Your task to perform on an android device: turn on location history Image 0: 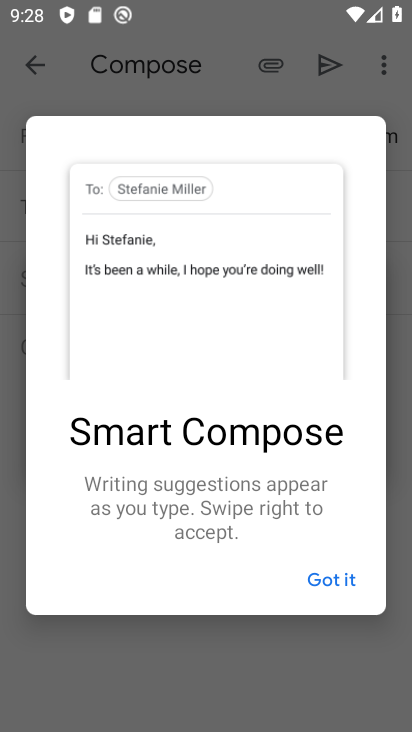
Step 0: press home button
Your task to perform on an android device: turn on location history Image 1: 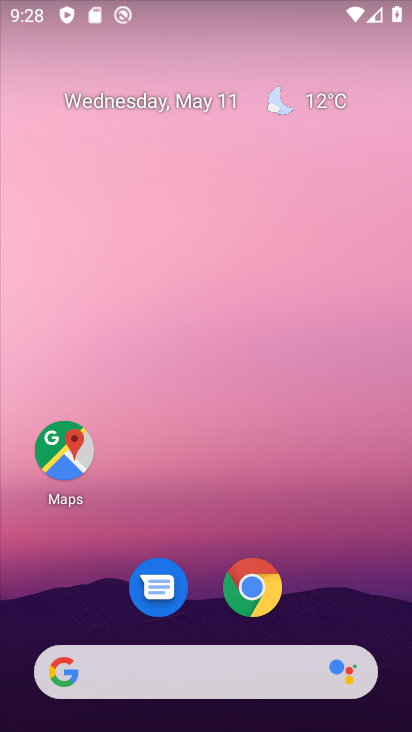
Step 1: click (55, 454)
Your task to perform on an android device: turn on location history Image 2: 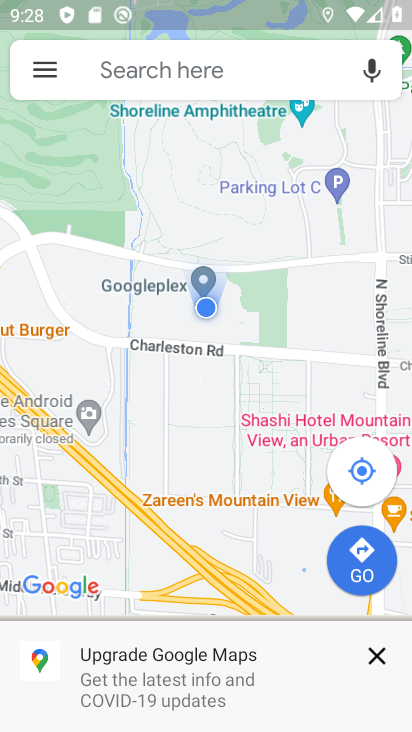
Step 2: click (52, 70)
Your task to perform on an android device: turn on location history Image 3: 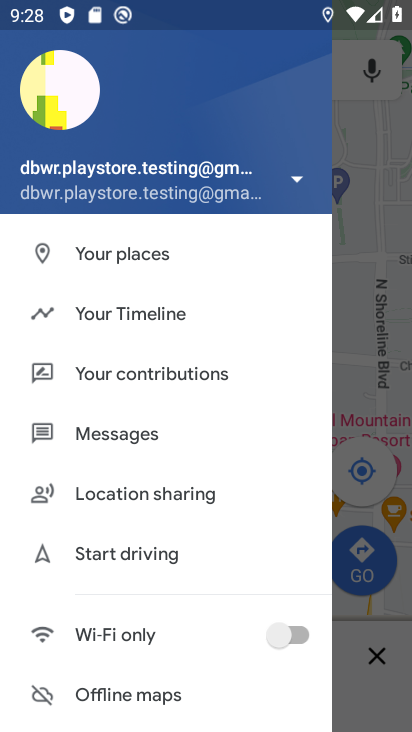
Step 3: click (140, 319)
Your task to perform on an android device: turn on location history Image 4: 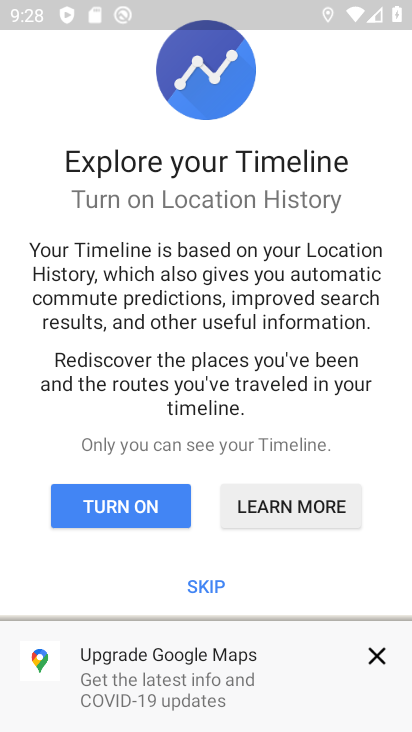
Step 4: click (217, 585)
Your task to perform on an android device: turn on location history Image 5: 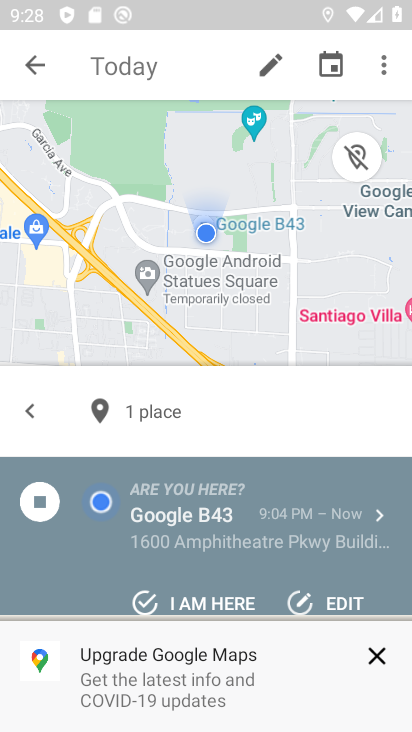
Step 5: click (381, 60)
Your task to perform on an android device: turn on location history Image 6: 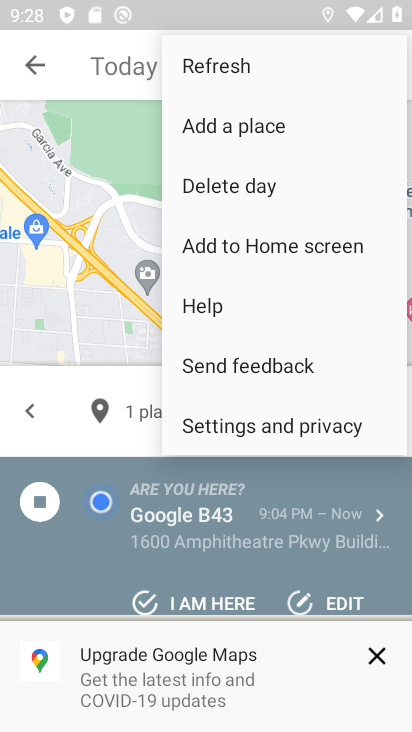
Step 6: click (227, 417)
Your task to perform on an android device: turn on location history Image 7: 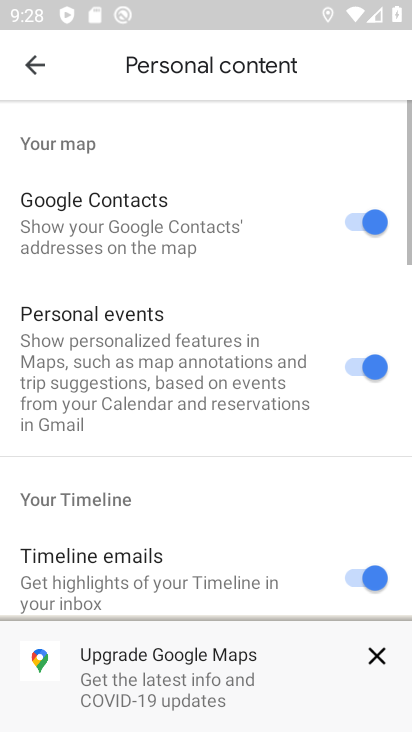
Step 7: drag from (136, 411) to (132, 146)
Your task to perform on an android device: turn on location history Image 8: 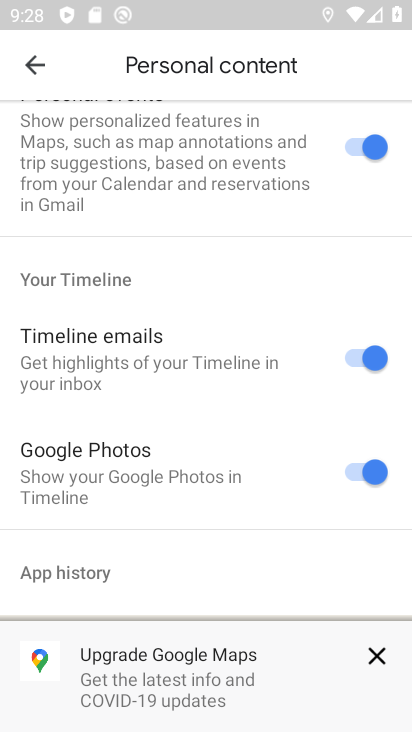
Step 8: drag from (113, 367) to (119, 73)
Your task to perform on an android device: turn on location history Image 9: 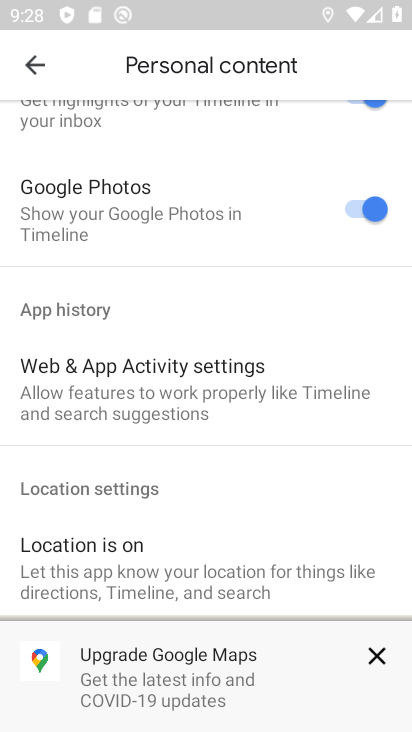
Step 9: drag from (171, 457) to (169, 250)
Your task to perform on an android device: turn on location history Image 10: 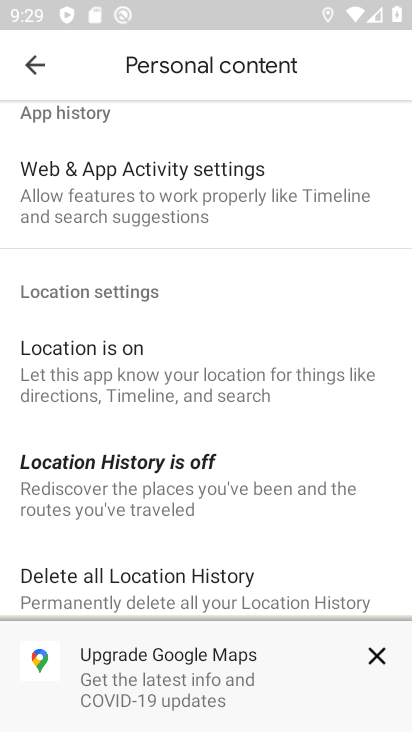
Step 10: click (125, 462)
Your task to perform on an android device: turn on location history Image 11: 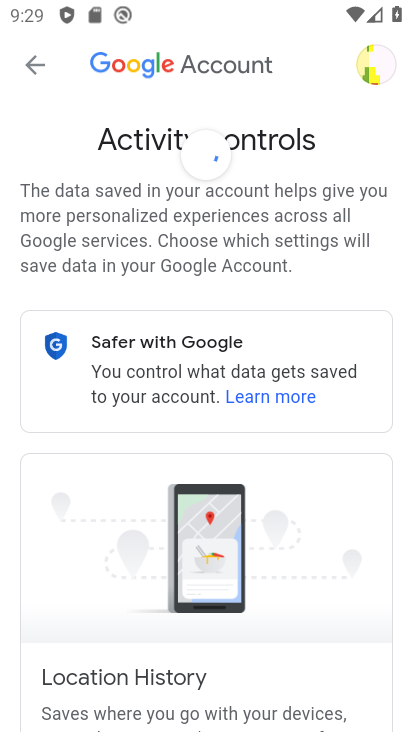
Step 11: drag from (278, 572) to (283, 103)
Your task to perform on an android device: turn on location history Image 12: 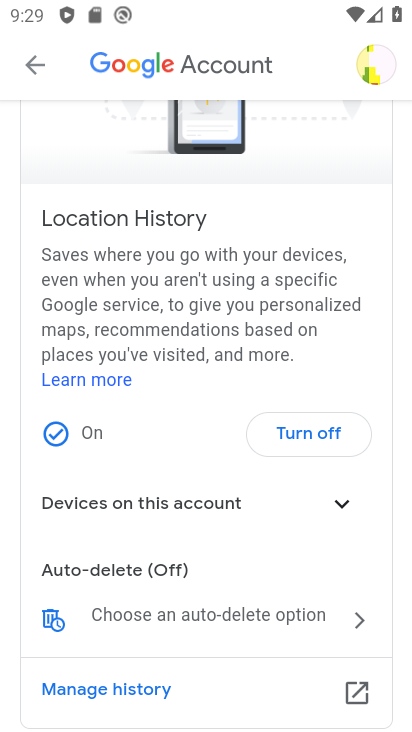
Step 12: click (314, 431)
Your task to perform on an android device: turn on location history Image 13: 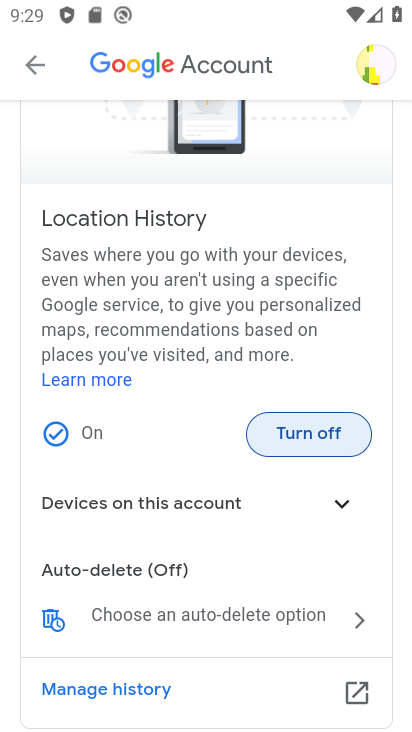
Step 13: click (221, 429)
Your task to perform on an android device: turn on location history Image 14: 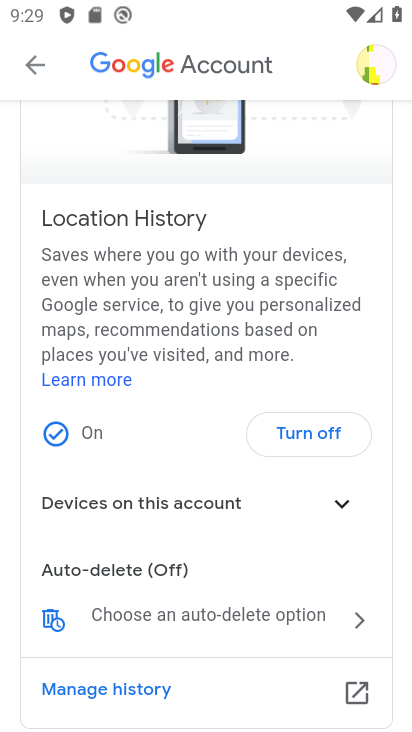
Step 14: click (71, 435)
Your task to perform on an android device: turn on location history Image 15: 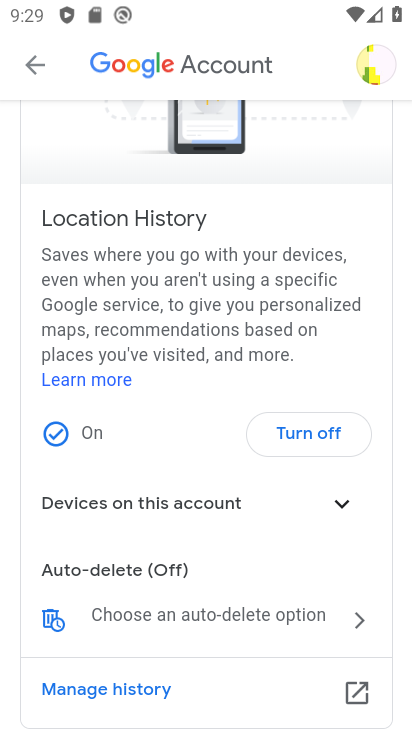
Step 15: task complete